Your task to perform on an android device: snooze an email in the gmail app Image 0: 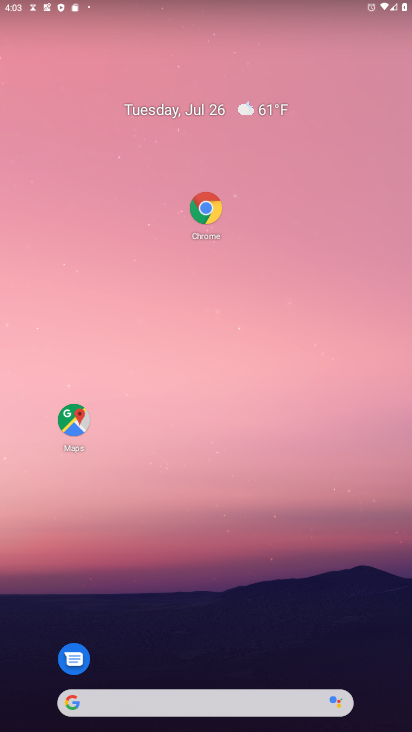
Step 0: press home button
Your task to perform on an android device: snooze an email in the gmail app Image 1: 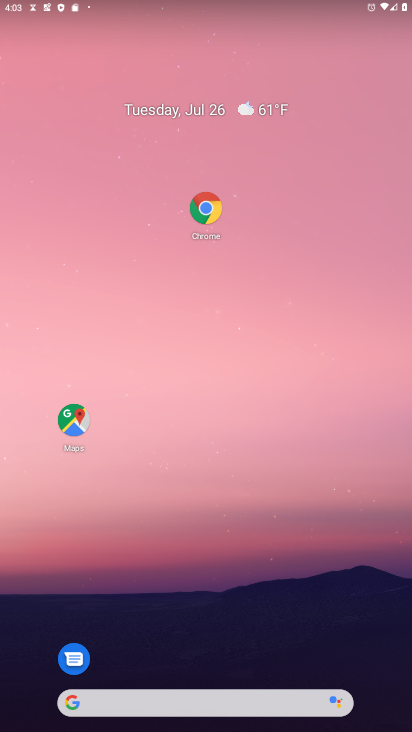
Step 1: drag from (169, 656) to (225, 33)
Your task to perform on an android device: snooze an email in the gmail app Image 2: 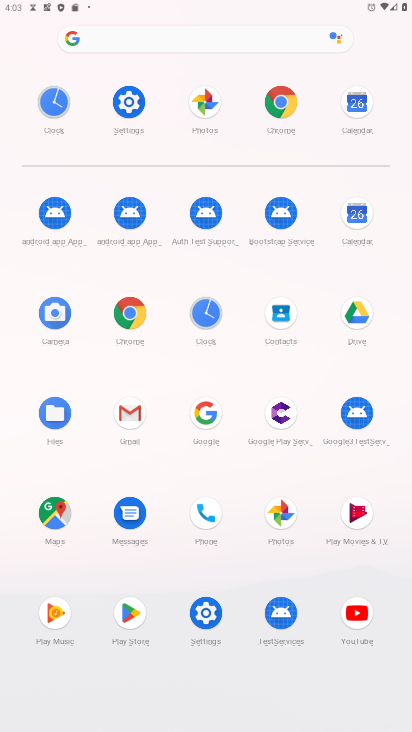
Step 2: click (127, 432)
Your task to perform on an android device: snooze an email in the gmail app Image 3: 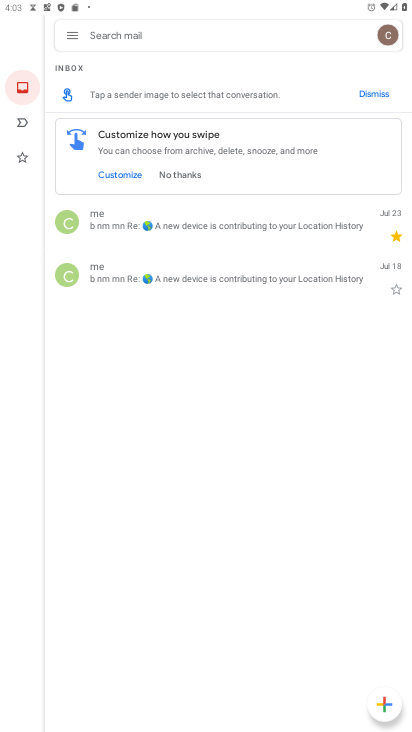
Step 3: click (247, 279)
Your task to perform on an android device: snooze an email in the gmail app Image 4: 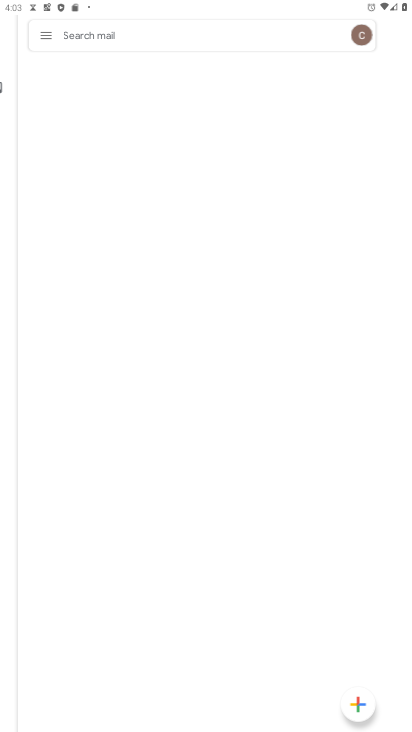
Step 4: click (391, 31)
Your task to perform on an android device: snooze an email in the gmail app Image 5: 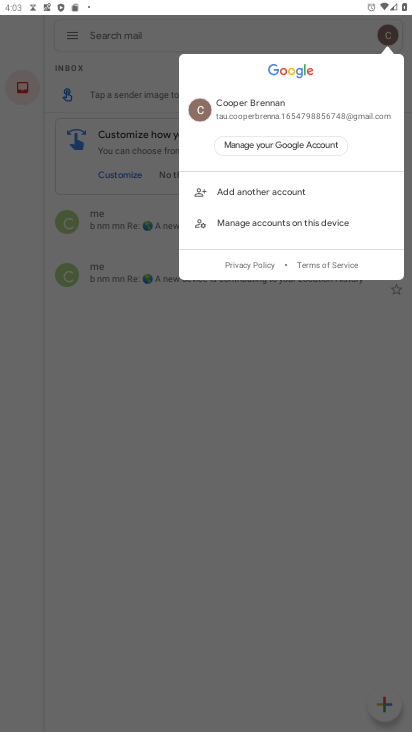
Step 5: click (262, 469)
Your task to perform on an android device: snooze an email in the gmail app Image 6: 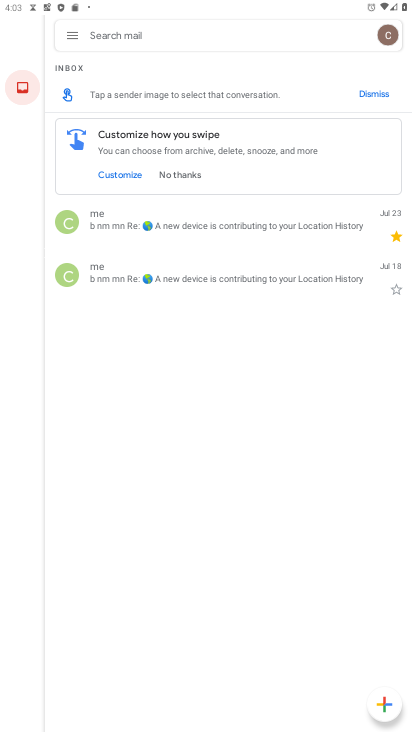
Step 6: click (184, 277)
Your task to perform on an android device: snooze an email in the gmail app Image 7: 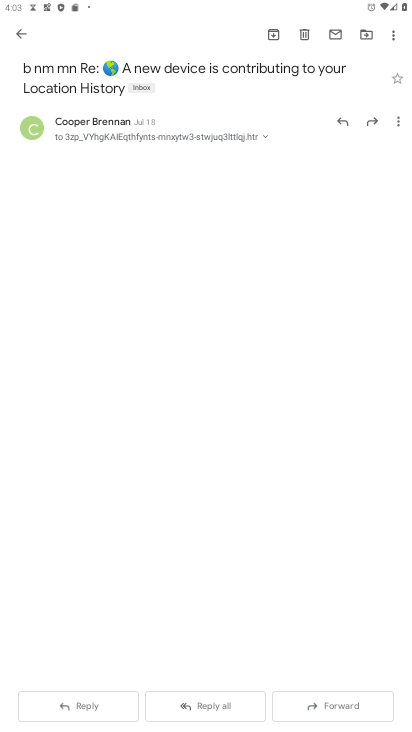
Step 7: click (400, 34)
Your task to perform on an android device: snooze an email in the gmail app Image 8: 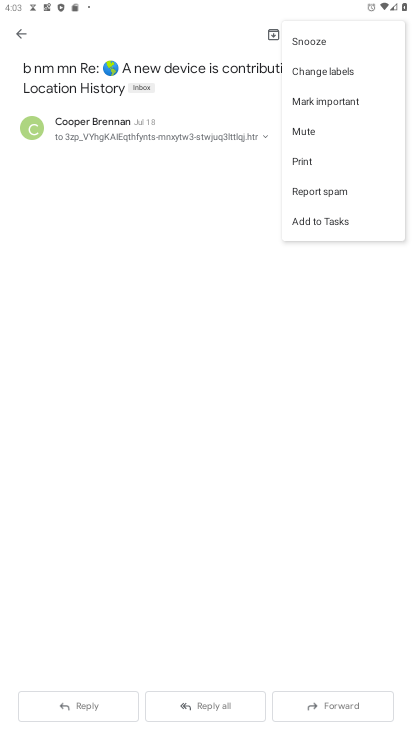
Step 8: click (354, 29)
Your task to perform on an android device: snooze an email in the gmail app Image 9: 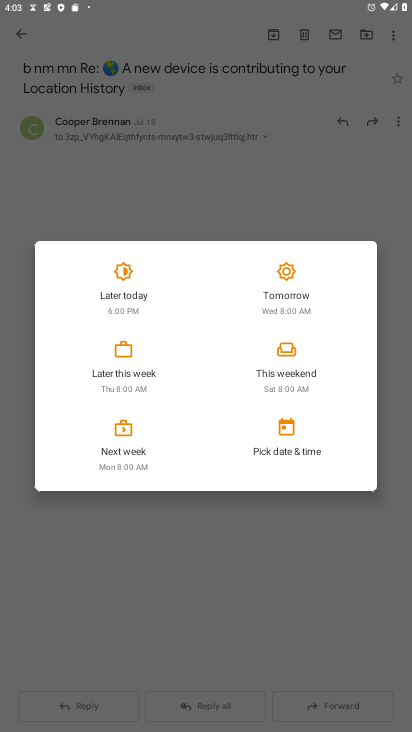
Step 9: click (116, 300)
Your task to perform on an android device: snooze an email in the gmail app Image 10: 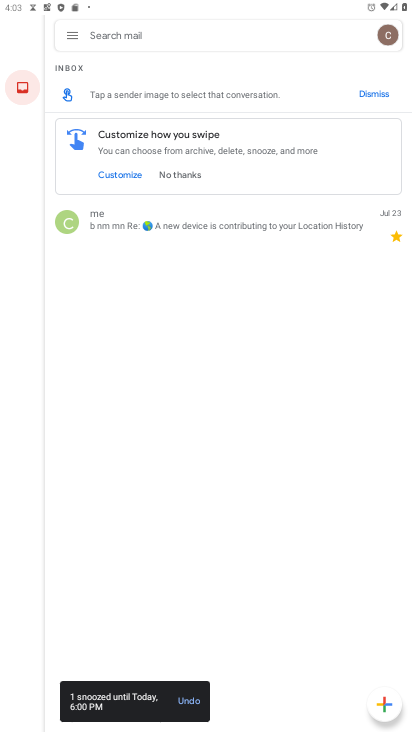
Step 10: task complete